Your task to perform on an android device: turn off picture-in-picture Image 0: 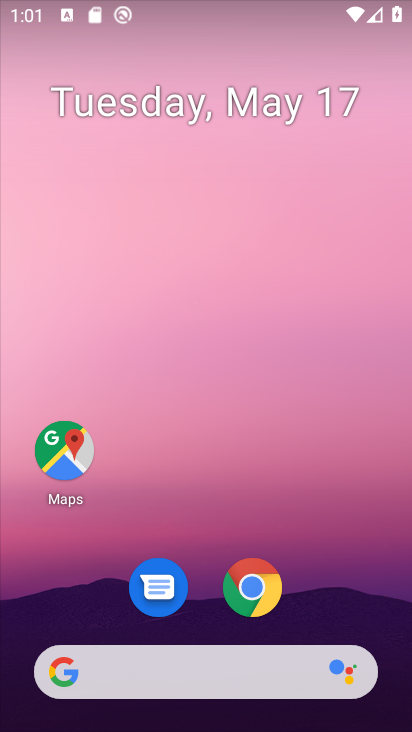
Step 0: click (316, 205)
Your task to perform on an android device: turn off picture-in-picture Image 1: 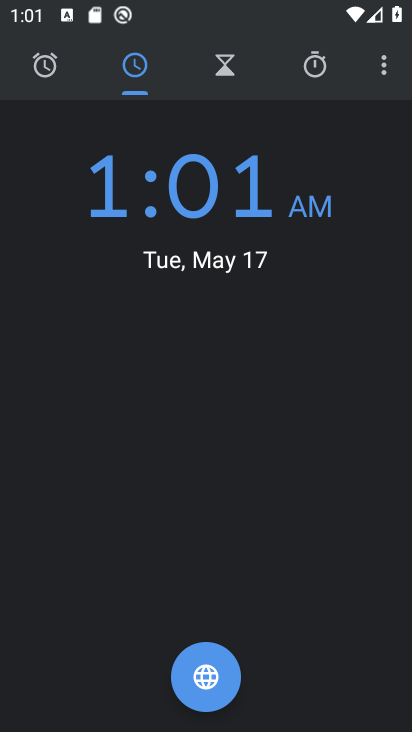
Step 1: drag from (176, 514) to (331, 2)
Your task to perform on an android device: turn off picture-in-picture Image 2: 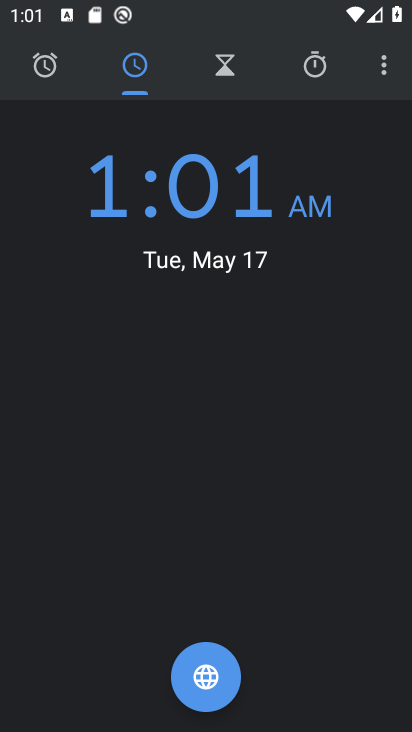
Step 2: click (228, 63)
Your task to perform on an android device: turn off picture-in-picture Image 3: 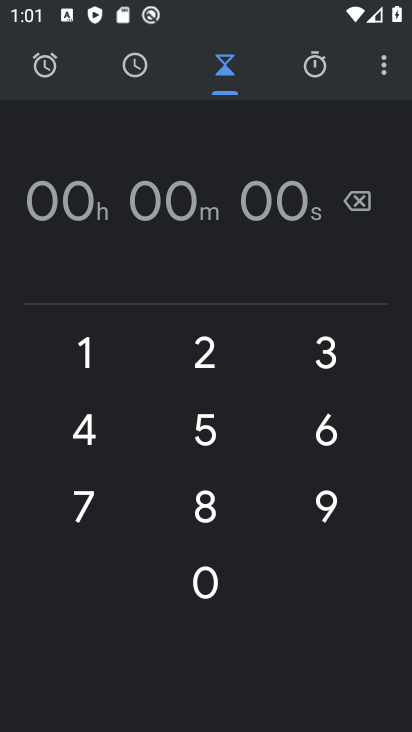
Step 3: press home button
Your task to perform on an android device: turn off picture-in-picture Image 4: 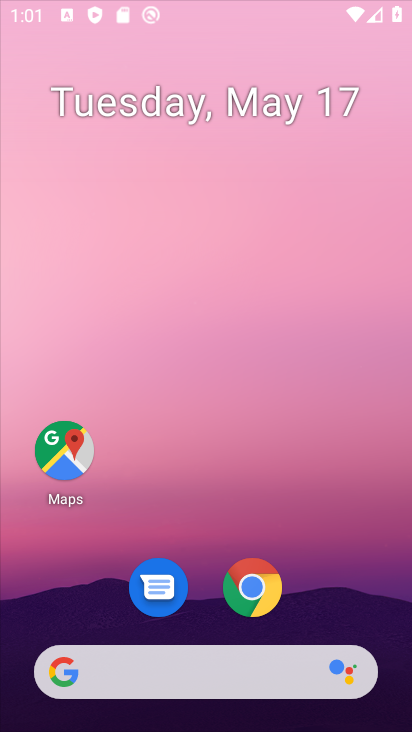
Step 4: drag from (200, 645) to (283, 58)
Your task to perform on an android device: turn off picture-in-picture Image 5: 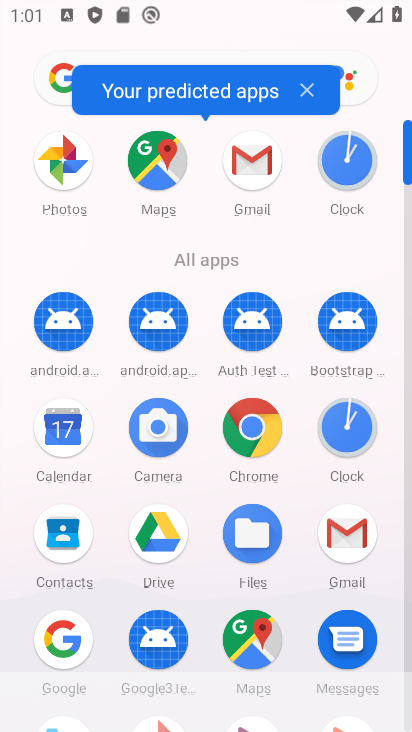
Step 5: drag from (229, 583) to (251, 135)
Your task to perform on an android device: turn off picture-in-picture Image 6: 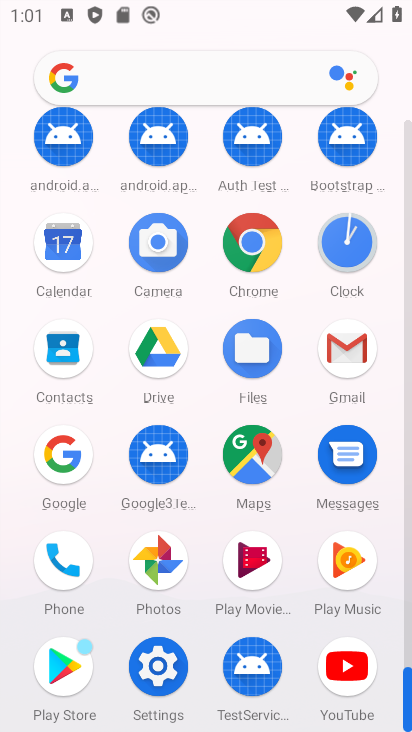
Step 6: click (144, 675)
Your task to perform on an android device: turn off picture-in-picture Image 7: 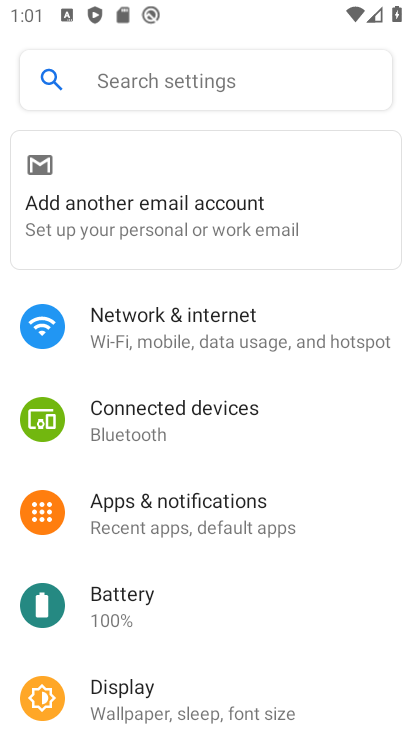
Step 7: click (201, 537)
Your task to perform on an android device: turn off picture-in-picture Image 8: 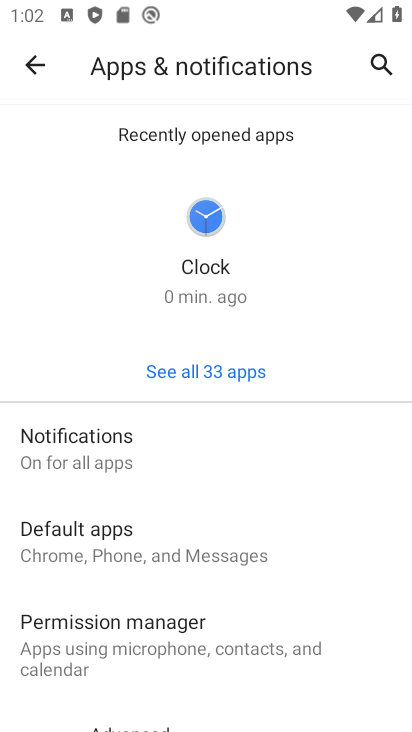
Step 8: drag from (227, 585) to (321, 109)
Your task to perform on an android device: turn off picture-in-picture Image 9: 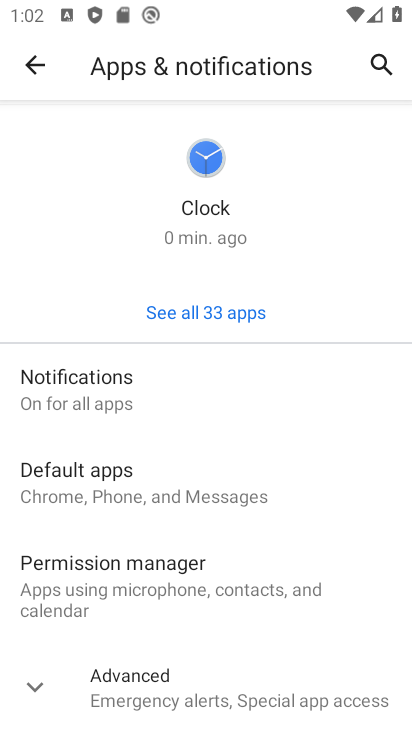
Step 9: click (131, 388)
Your task to perform on an android device: turn off picture-in-picture Image 10: 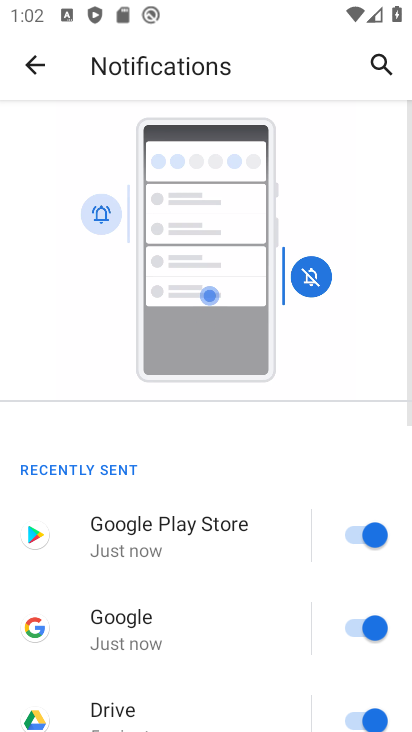
Step 10: click (33, 53)
Your task to perform on an android device: turn off picture-in-picture Image 11: 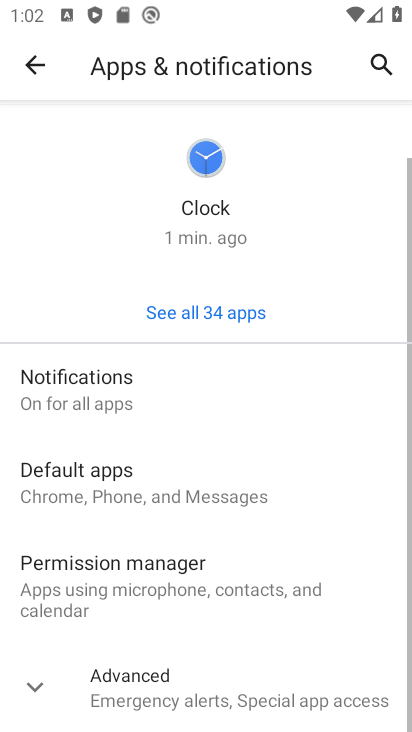
Step 11: drag from (238, 46) to (265, 0)
Your task to perform on an android device: turn off picture-in-picture Image 12: 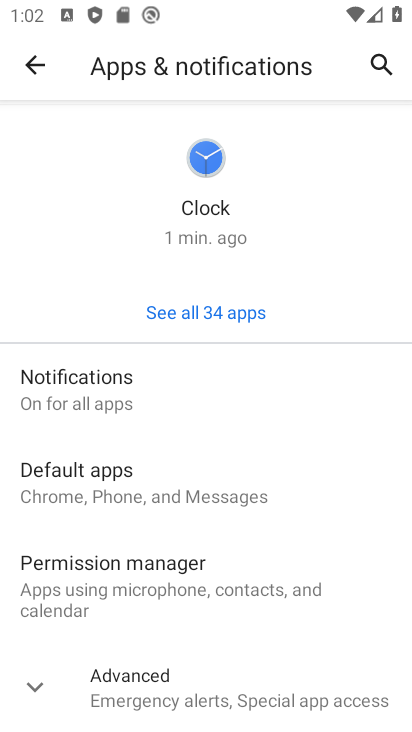
Step 12: drag from (247, 505) to (300, 134)
Your task to perform on an android device: turn off picture-in-picture Image 13: 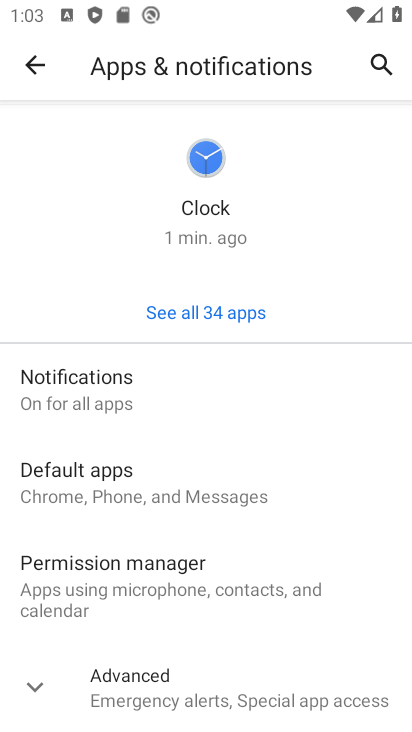
Step 13: click (166, 379)
Your task to perform on an android device: turn off picture-in-picture Image 14: 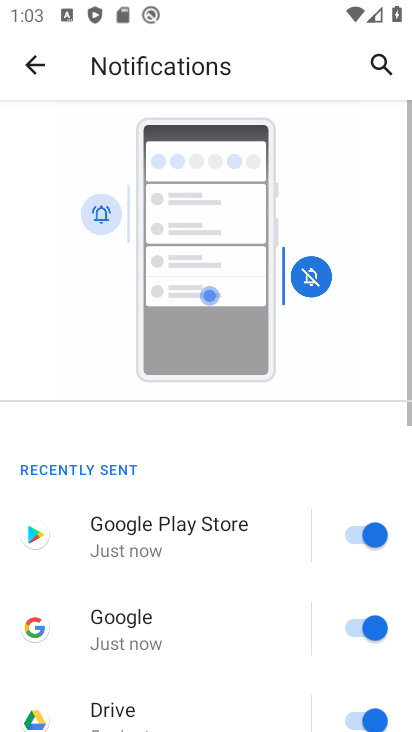
Step 14: drag from (221, 517) to (250, 45)
Your task to perform on an android device: turn off picture-in-picture Image 15: 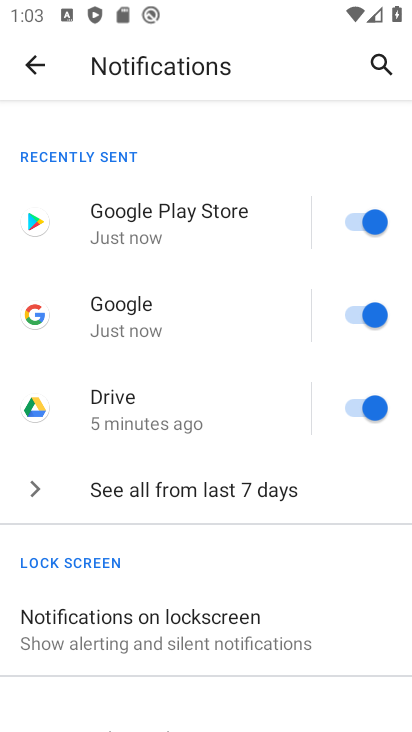
Step 15: click (42, 66)
Your task to perform on an android device: turn off picture-in-picture Image 16: 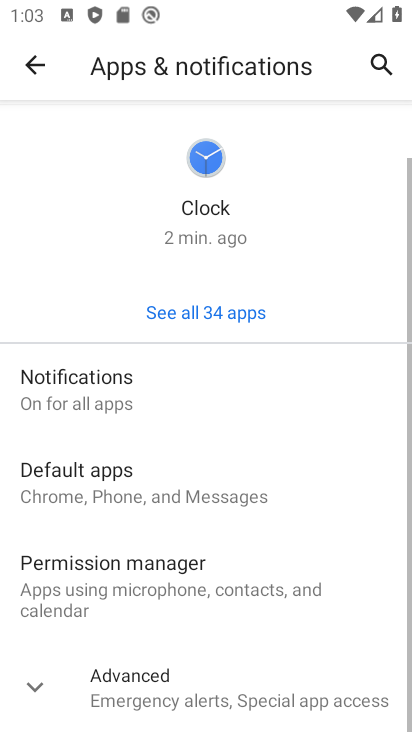
Step 16: drag from (182, 521) to (254, 9)
Your task to perform on an android device: turn off picture-in-picture Image 17: 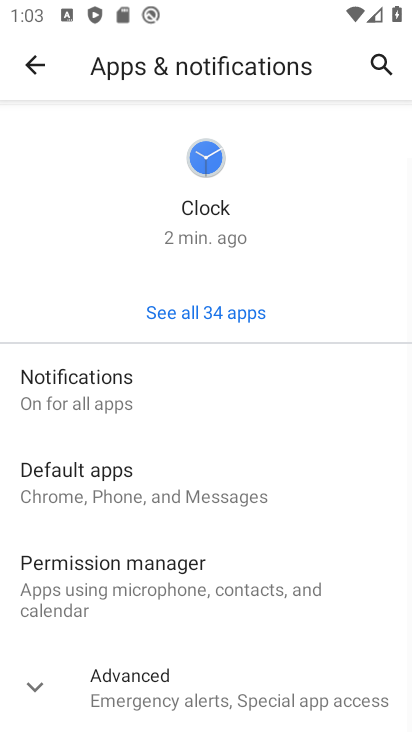
Step 17: click (185, 678)
Your task to perform on an android device: turn off picture-in-picture Image 18: 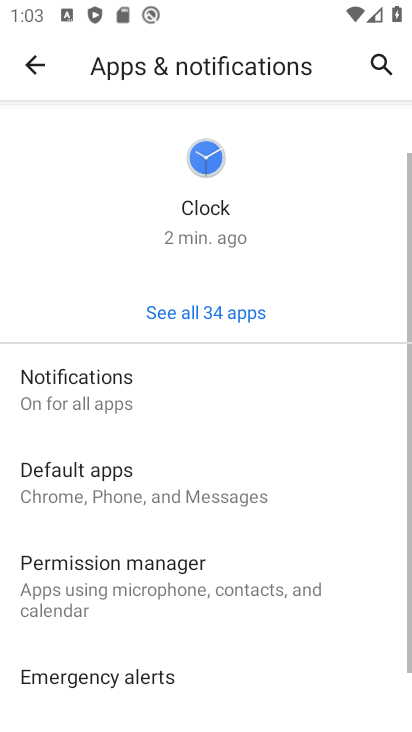
Step 18: drag from (187, 676) to (198, 35)
Your task to perform on an android device: turn off picture-in-picture Image 19: 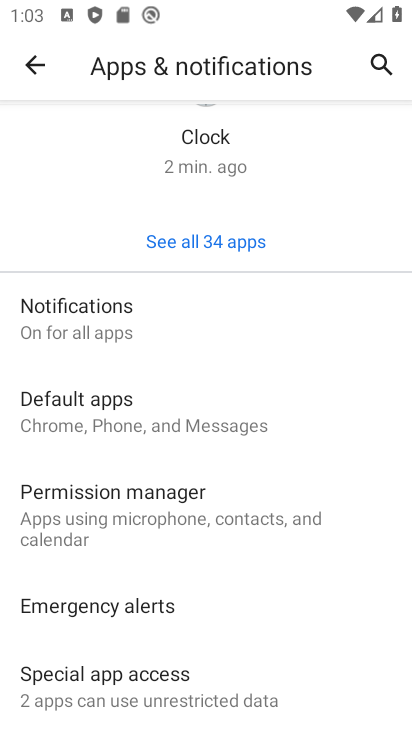
Step 19: click (192, 679)
Your task to perform on an android device: turn off picture-in-picture Image 20: 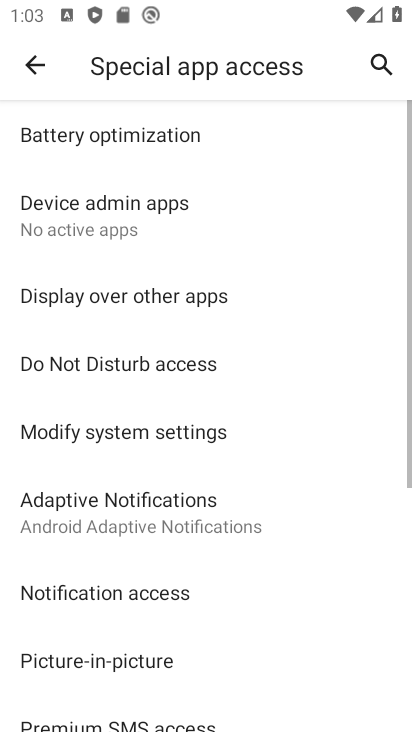
Step 20: drag from (192, 669) to (236, 30)
Your task to perform on an android device: turn off picture-in-picture Image 21: 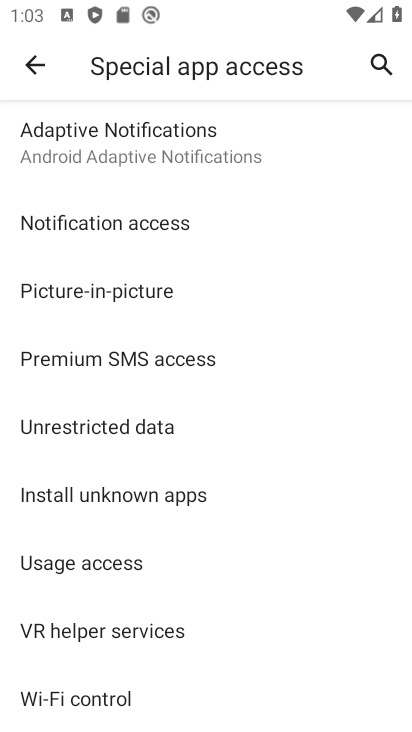
Step 21: click (190, 292)
Your task to perform on an android device: turn off picture-in-picture Image 22: 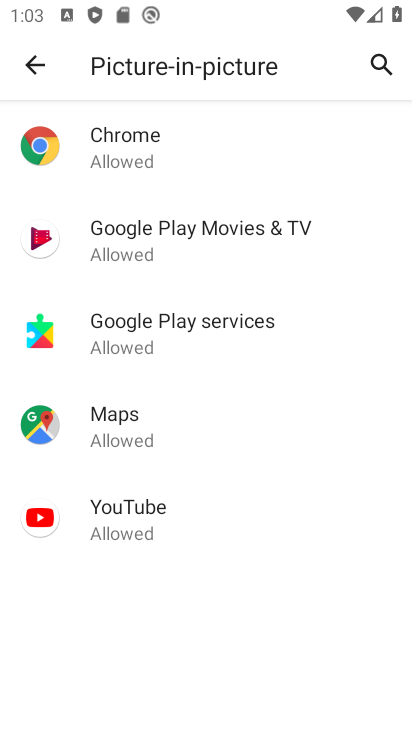
Step 22: task complete